Your task to perform on an android device: open device folders in google photos Image 0: 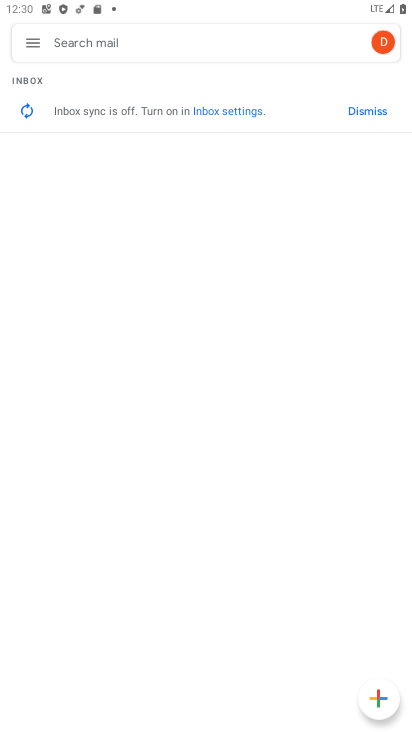
Step 0: press home button
Your task to perform on an android device: open device folders in google photos Image 1: 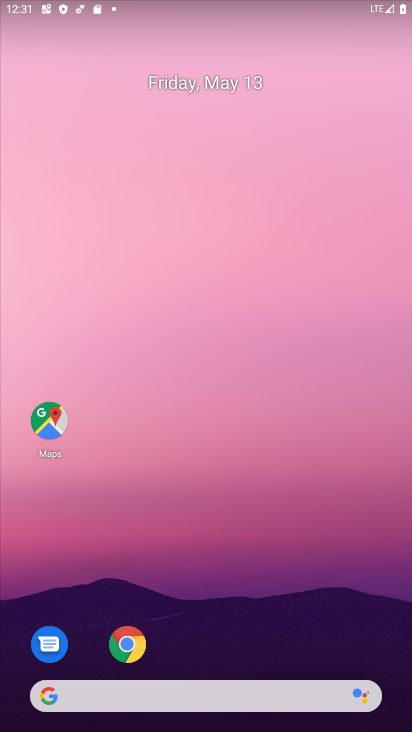
Step 1: drag from (296, 628) to (257, 42)
Your task to perform on an android device: open device folders in google photos Image 2: 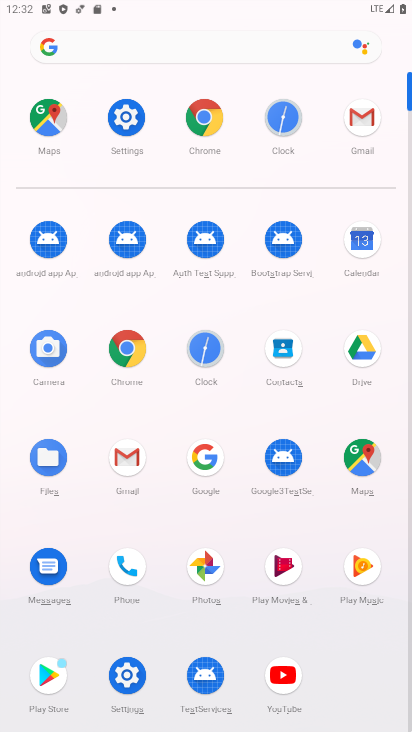
Step 2: click (209, 584)
Your task to perform on an android device: open device folders in google photos Image 3: 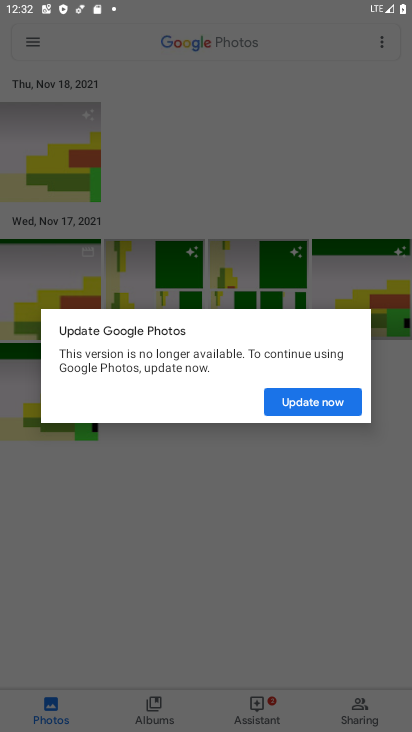
Step 3: click (313, 400)
Your task to perform on an android device: open device folders in google photos Image 4: 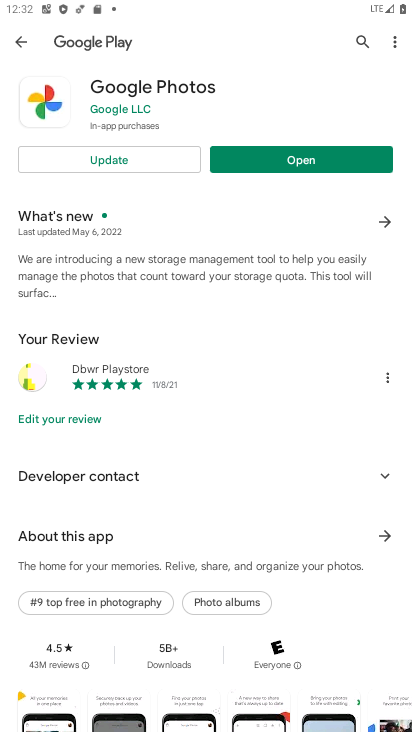
Step 4: click (164, 171)
Your task to perform on an android device: open device folders in google photos Image 5: 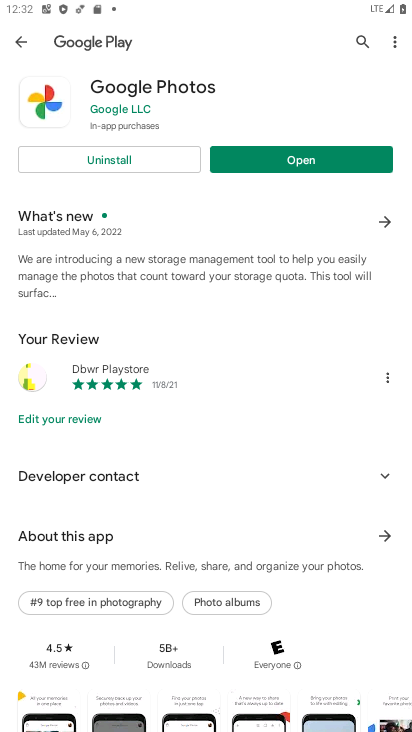
Step 5: click (280, 169)
Your task to perform on an android device: open device folders in google photos Image 6: 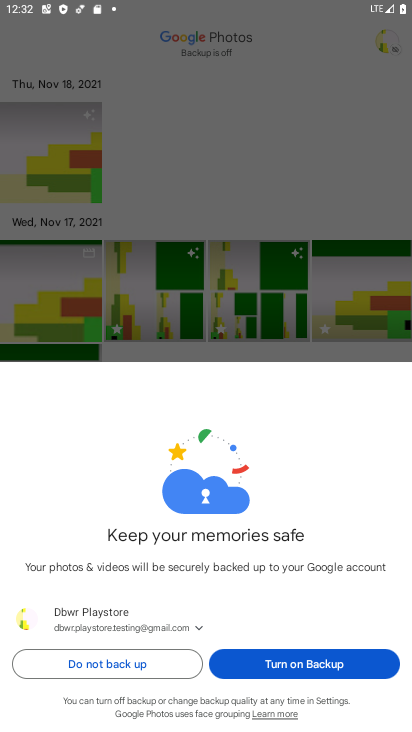
Step 6: click (314, 654)
Your task to perform on an android device: open device folders in google photos Image 7: 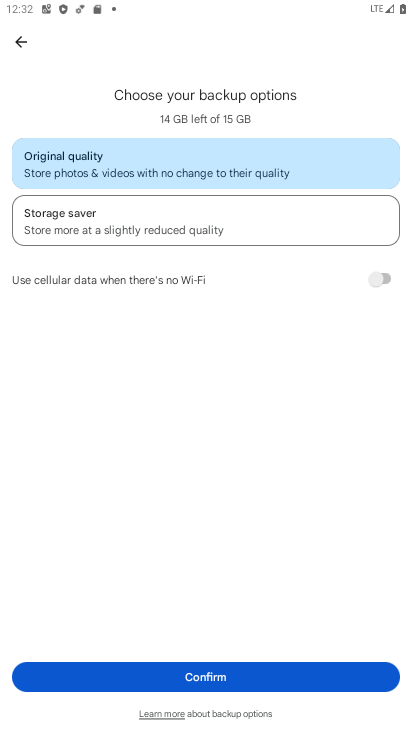
Step 7: task complete